Your task to perform on an android device: Open ESPN.com Image 0: 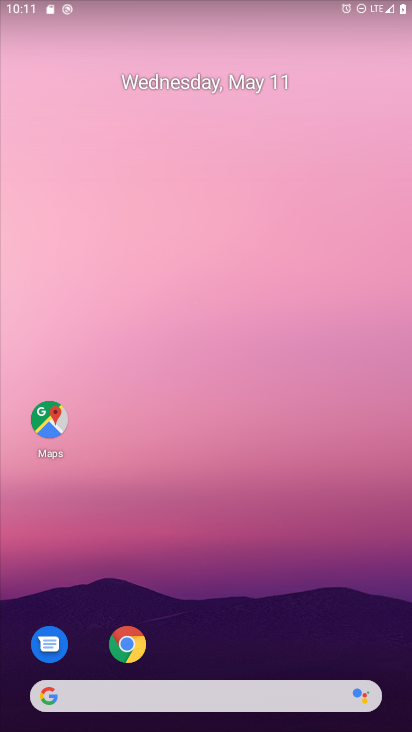
Step 0: click (127, 653)
Your task to perform on an android device: Open ESPN.com Image 1: 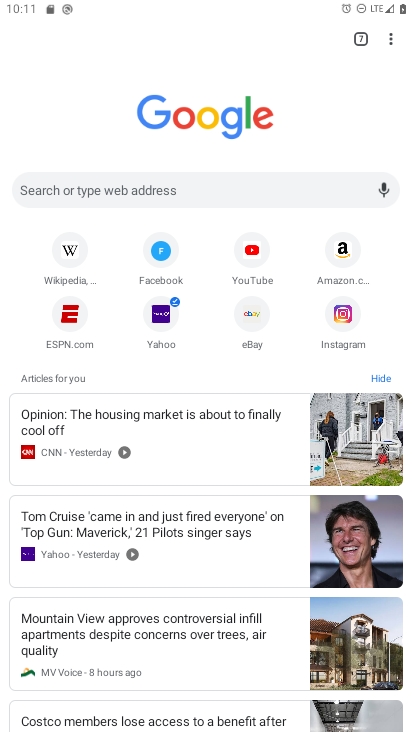
Step 1: click (72, 310)
Your task to perform on an android device: Open ESPN.com Image 2: 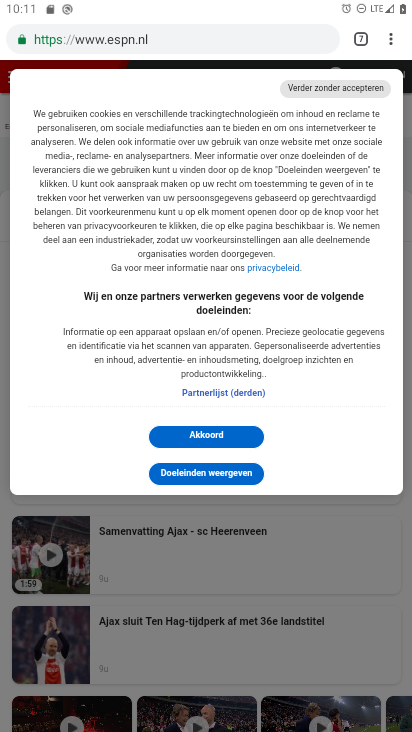
Step 2: task complete